Your task to perform on an android device: Open the stopwatch Image 0: 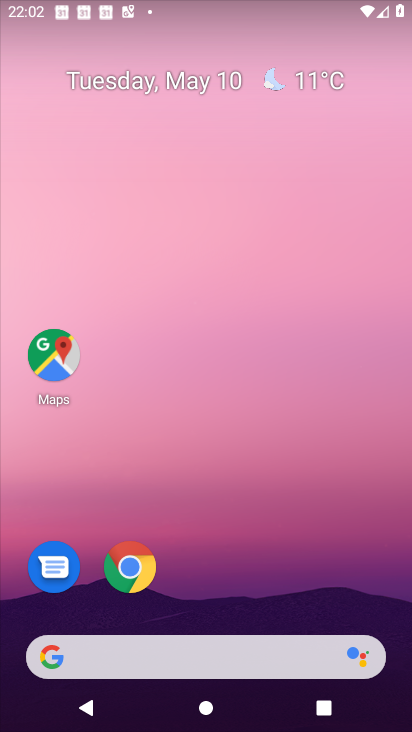
Step 0: drag from (204, 644) to (204, 279)
Your task to perform on an android device: Open the stopwatch Image 1: 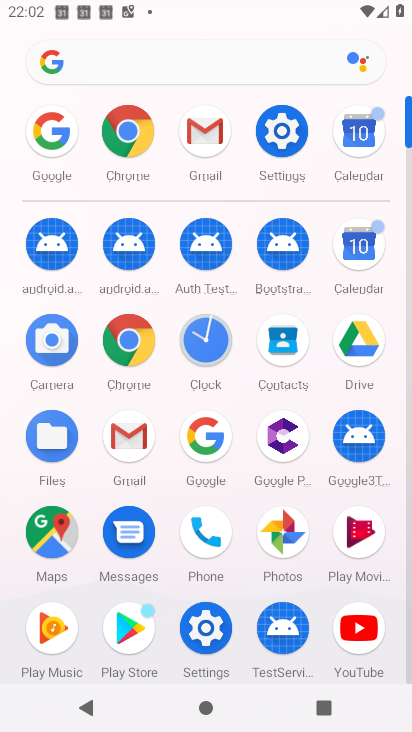
Step 1: click (194, 324)
Your task to perform on an android device: Open the stopwatch Image 2: 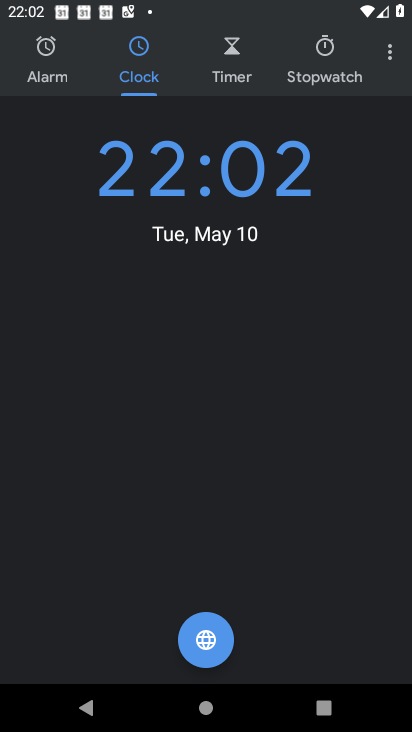
Step 2: click (305, 59)
Your task to perform on an android device: Open the stopwatch Image 3: 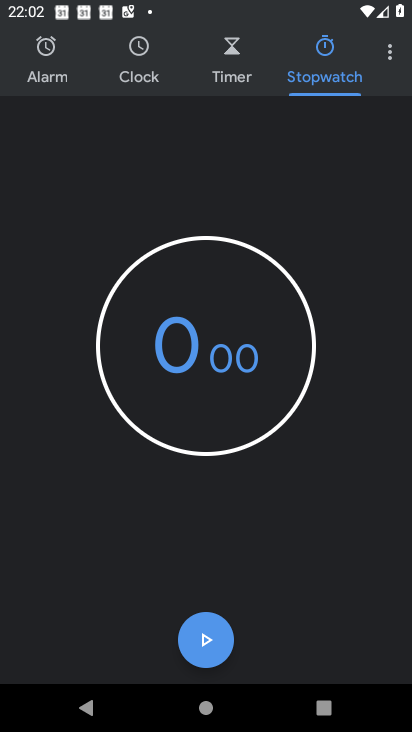
Step 3: task complete